Your task to perform on an android device: turn on javascript in the chrome app Image 0: 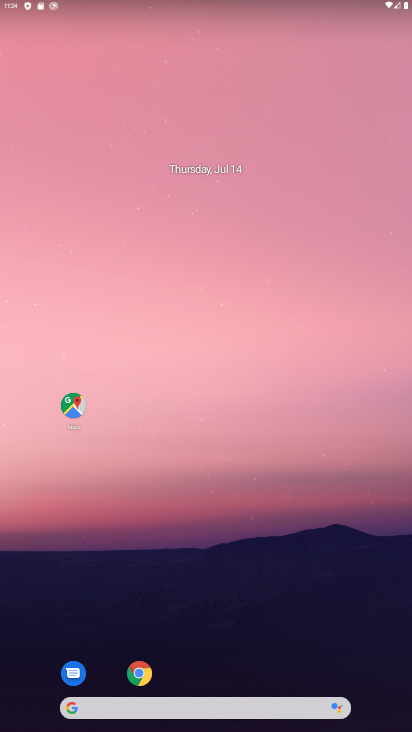
Step 0: click (287, 87)
Your task to perform on an android device: turn on javascript in the chrome app Image 1: 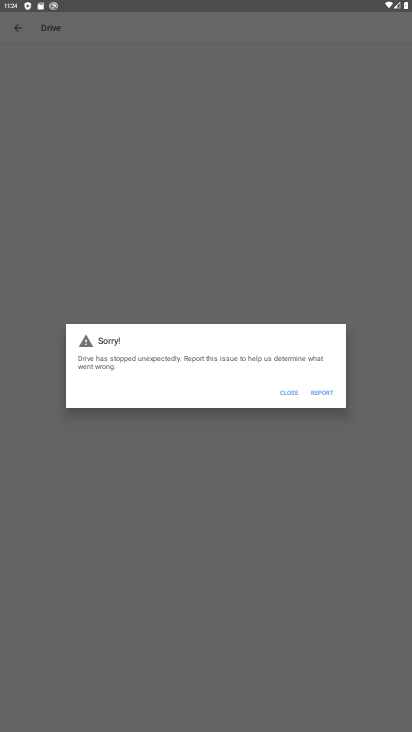
Step 1: press home button
Your task to perform on an android device: turn on javascript in the chrome app Image 2: 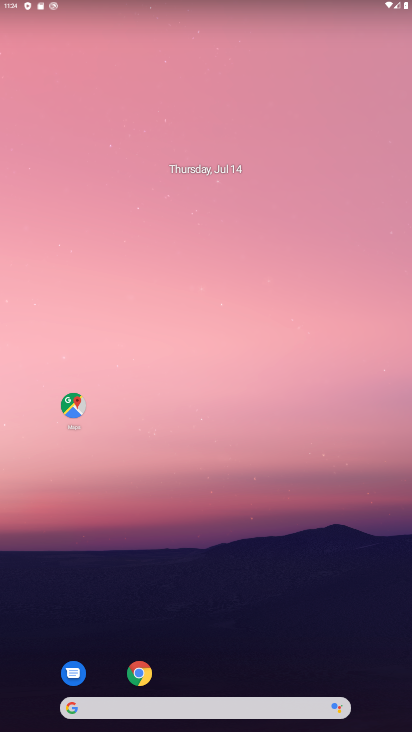
Step 2: click (133, 670)
Your task to perform on an android device: turn on javascript in the chrome app Image 3: 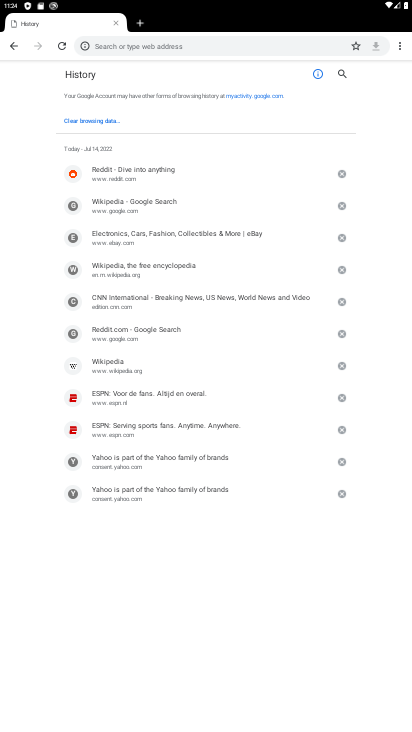
Step 3: click (13, 41)
Your task to perform on an android device: turn on javascript in the chrome app Image 4: 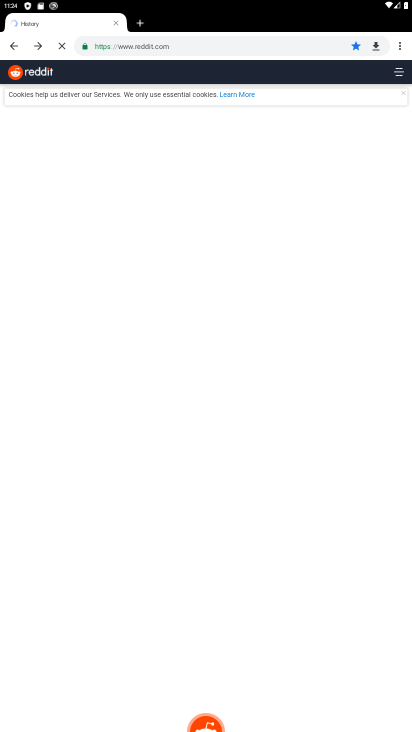
Step 4: click (401, 39)
Your task to perform on an android device: turn on javascript in the chrome app Image 5: 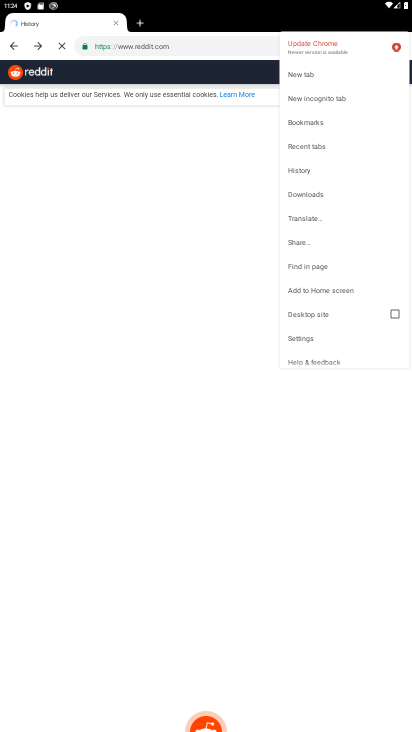
Step 5: click (289, 339)
Your task to perform on an android device: turn on javascript in the chrome app Image 6: 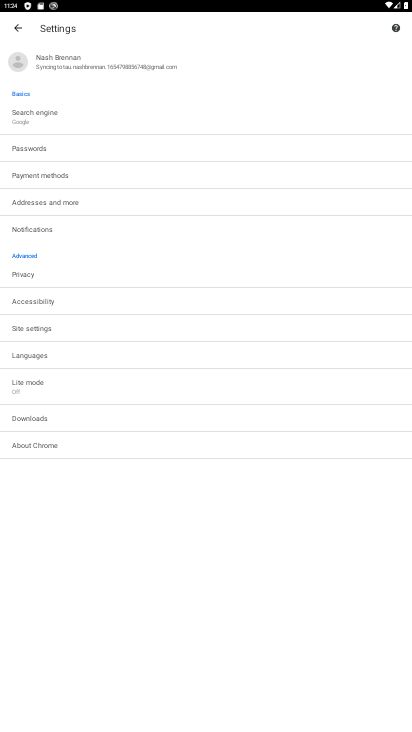
Step 6: click (52, 328)
Your task to perform on an android device: turn on javascript in the chrome app Image 7: 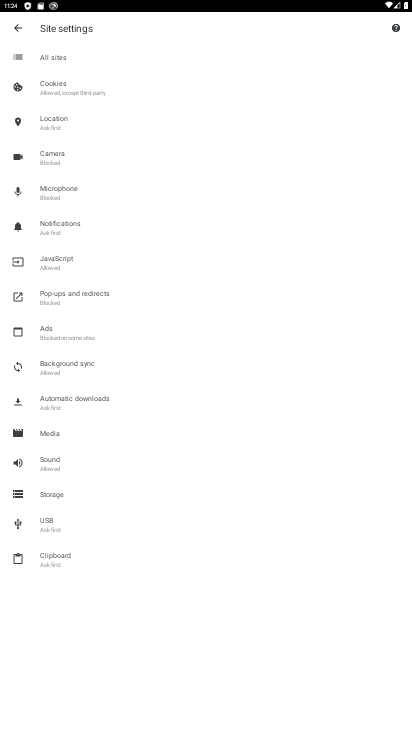
Step 7: click (65, 266)
Your task to perform on an android device: turn on javascript in the chrome app Image 8: 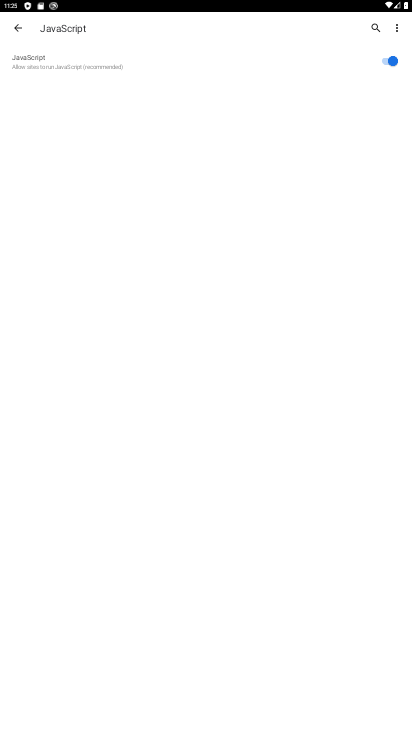
Step 8: task complete